Your task to perform on an android device: Open wifi settings Image 0: 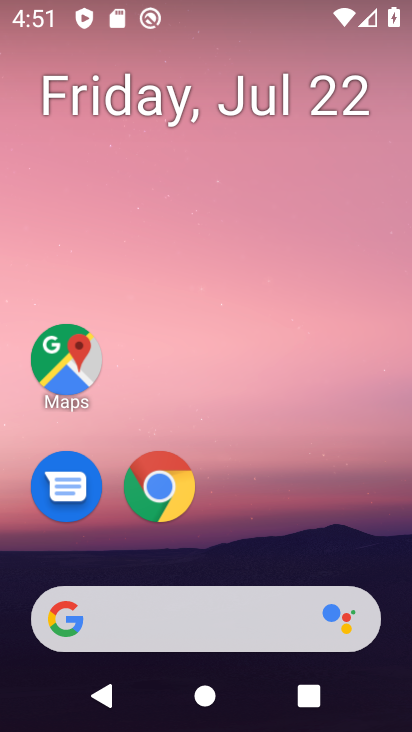
Step 0: drag from (397, 555) to (267, 61)
Your task to perform on an android device: Open wifi settings Image 1: 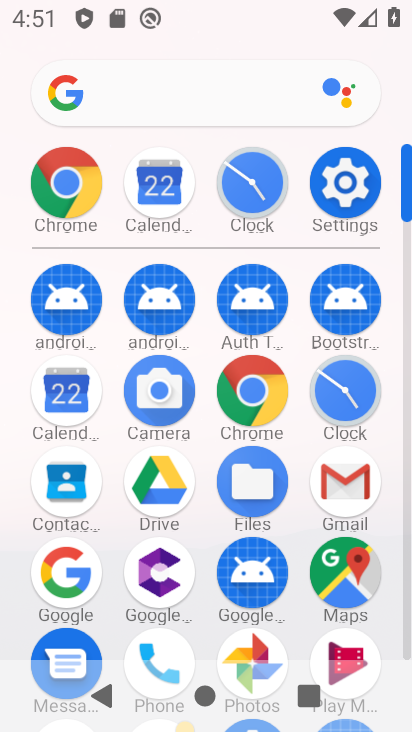
Step 1: click (331, 186)
Your task to perform on an android device: Open wifi settings Image 2: 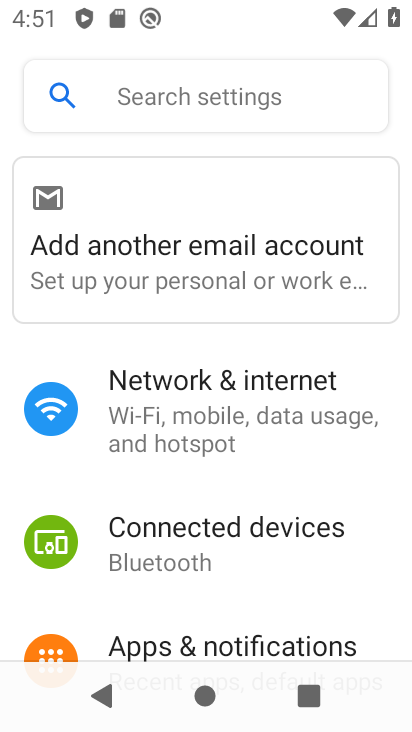
Step 2: click (232, 370)
Your task to perform on an android device: Open wifi settings Image 3: 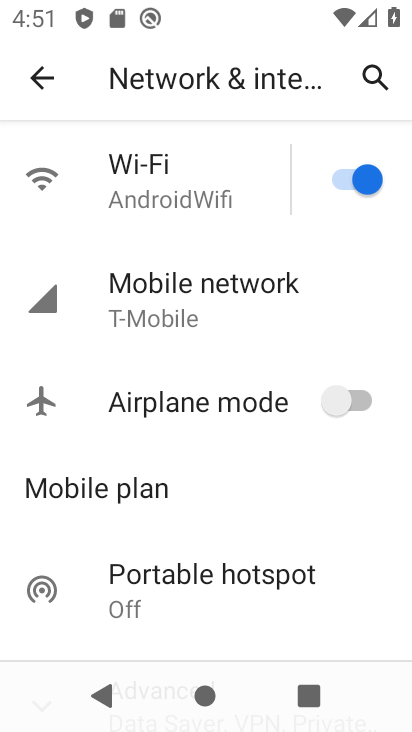
Step 3: click (160, 184)
Your task to perform on an android device: Open wifi settings Image 4: 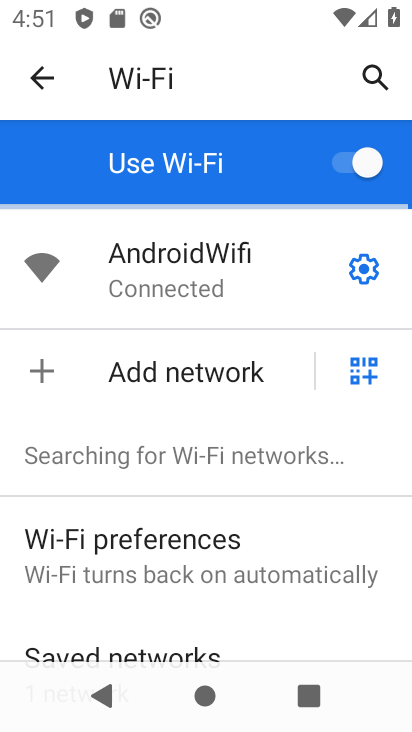
Step 4: task complete